Your task to perform on an android device: change the clock display to show seconds Image 0: 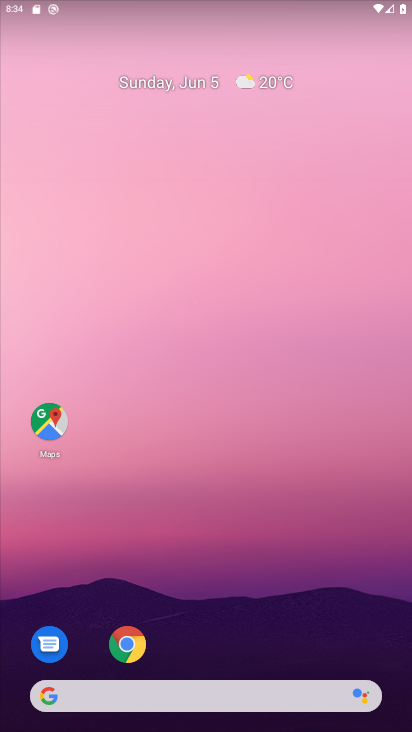
Step 0: drag from (252, 521) to (241, 229)
Your task to perform on an android device: change the clock display to show seconds Image 1: 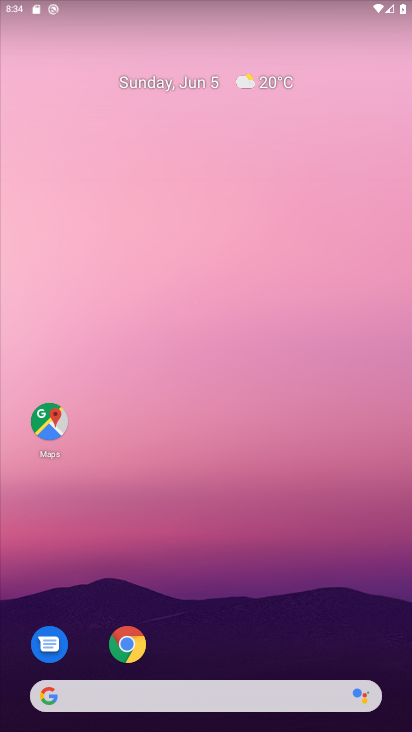
Step 1: drag from (339, 619) to (336, 131)
Your task to perform on an android device: change the clock display to show seconds Image 2: 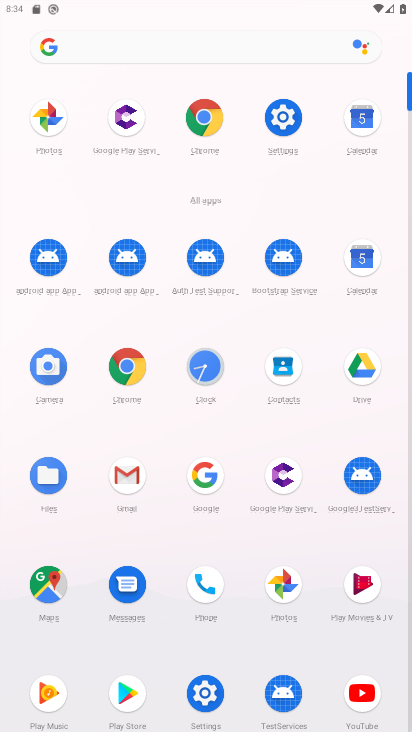
Step 2: click (216, 364)
Your task to perform on an android device: change the clock display to show seconds Image 3: 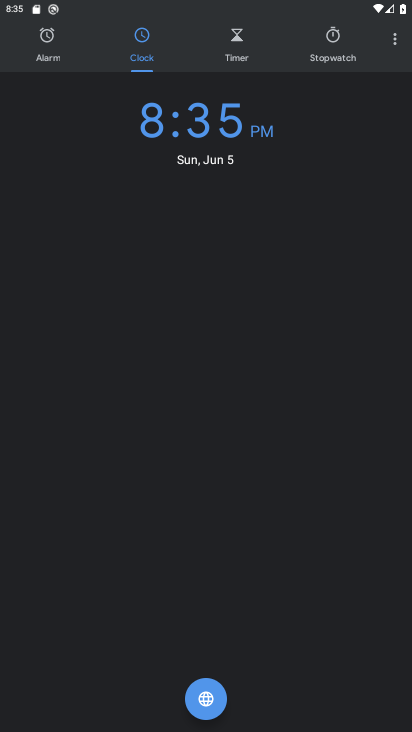
Step 3: drag from (389, 43) to (302, 72)
Your task to perform on an android device: change the clock display to show seconds Image 4: 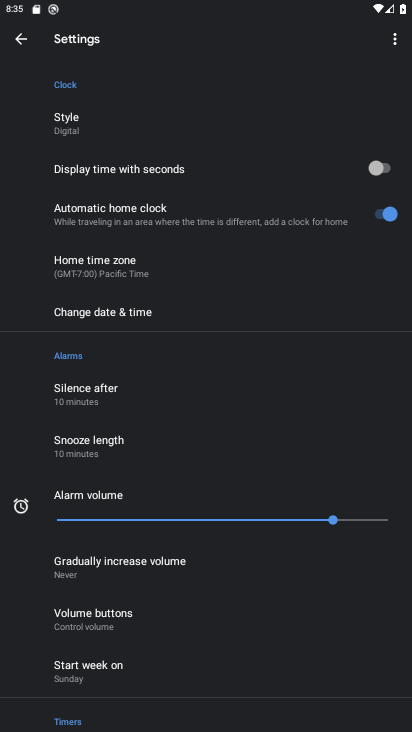
Step 4: click (382, 173)
Your task to perform on an android device: change the clock display to show seconds Image 5: 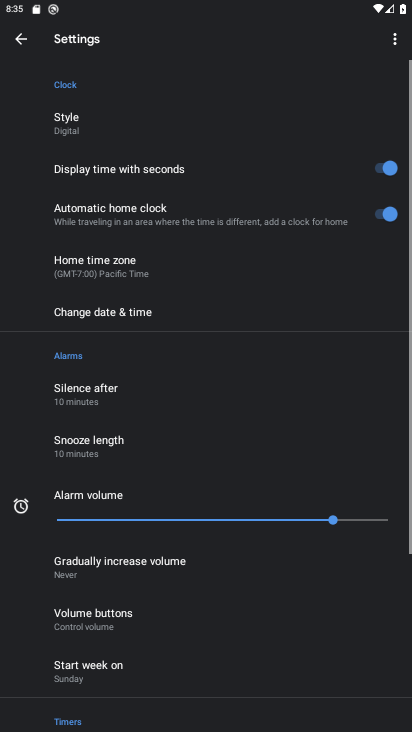
Step 5: task complete